Your task to perform on an android device: Go to battery settings Image 0: 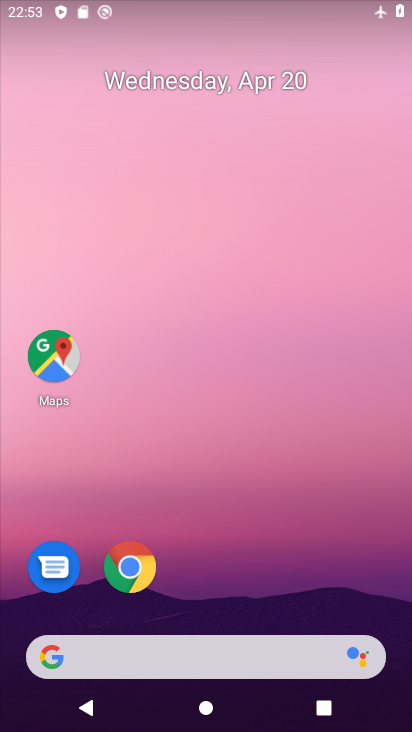
Step 0: drag from (279, 408) to (261, 197)
Your task to perform on an android device: Go to battery settings Image 1: 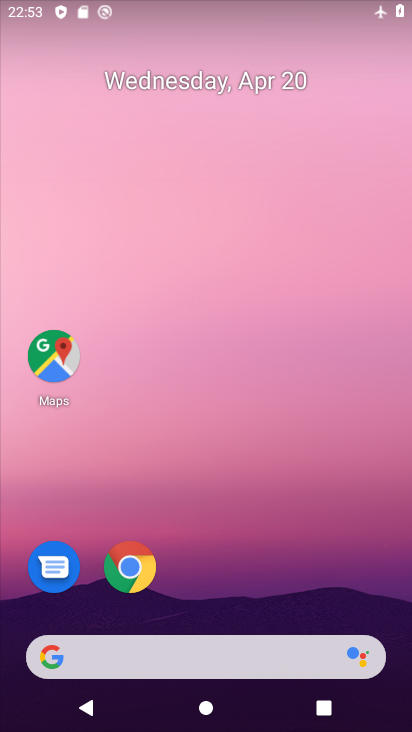
Step 1: click (269, 148)
Your task to perform on an android device: Go to battery settings Image 2: 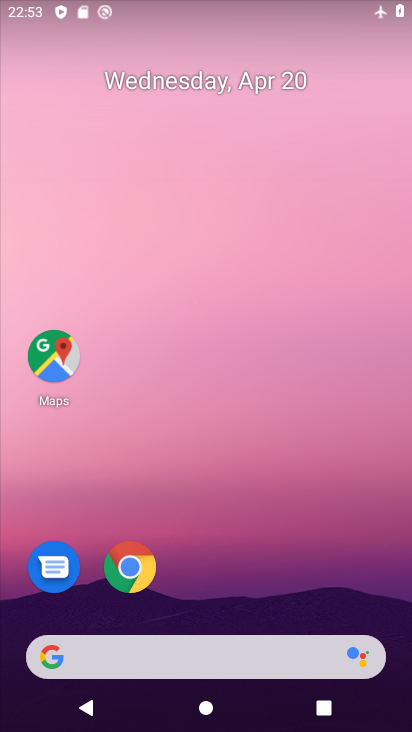
Step 2: drag from (234, 404) to (237, 223)
Your task to perform on an android device: Go to battery settings Image 3: 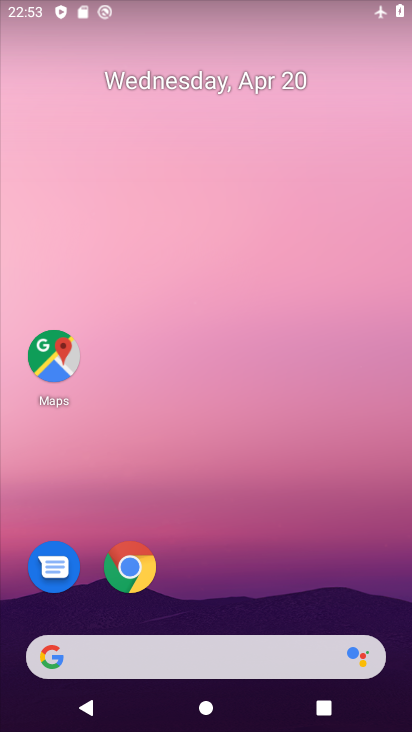
Step 3: drag from (269, 564) to (249, 252)
Your task to perform on an android device: Go to battery settings Image 4: 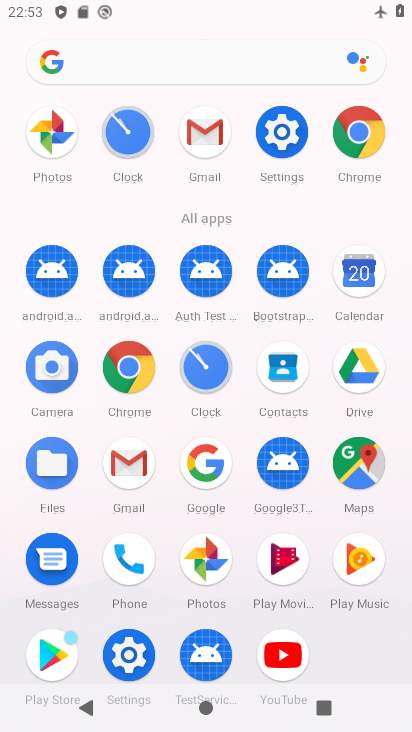
Step 4: click (283, 120)
Your task to perform on an android device: Go to battery settings Image 5: 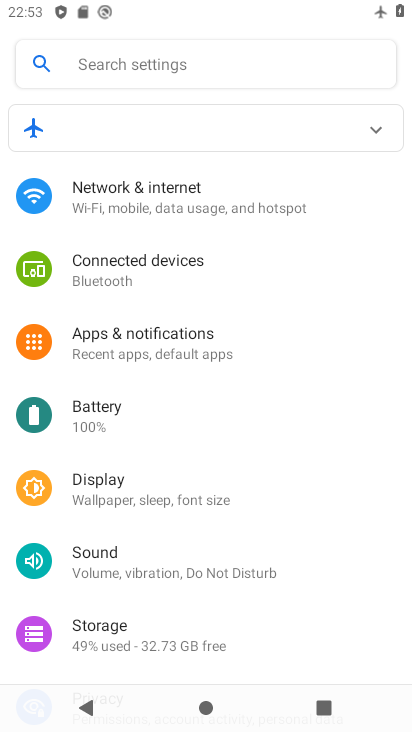
Step 5: click (135, 408)
Your task to perform on an android device: Go to battery settings Image 6: 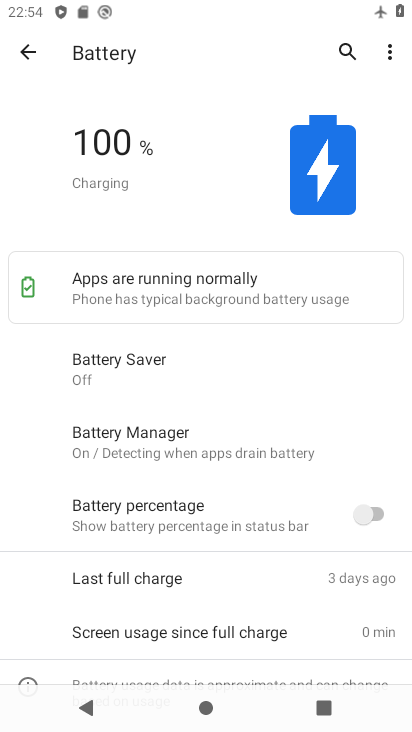
Step 6: task complete